Your task to perform on an android device: What's the weather? Image 0: 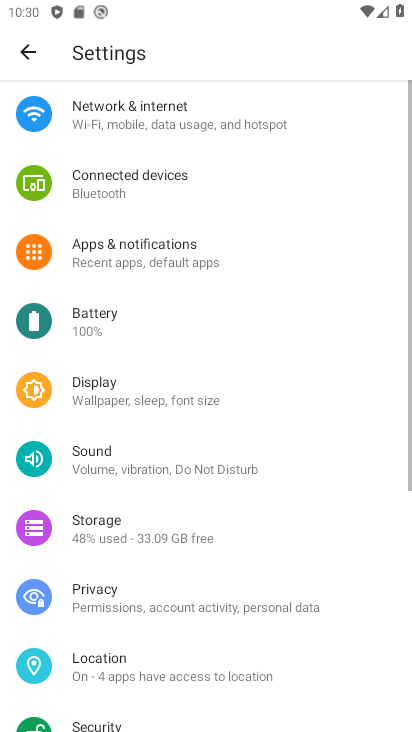
Step 0: press home button
Your task to perform on an android device: What's the weather? Image 1: 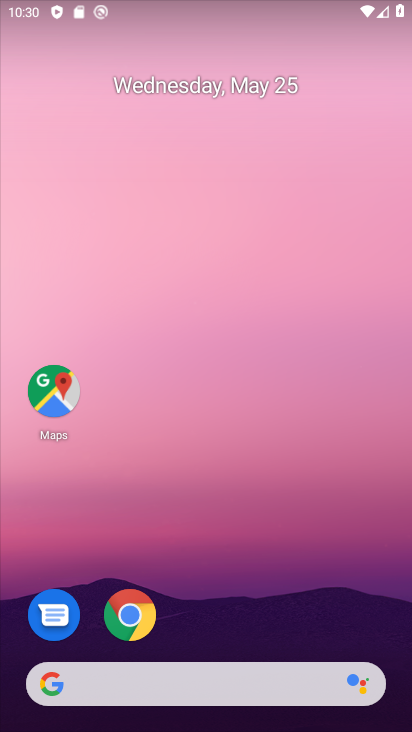
Step 1: click (143, 683)
Your task to perform on an android device: What's the weather? Image 2: 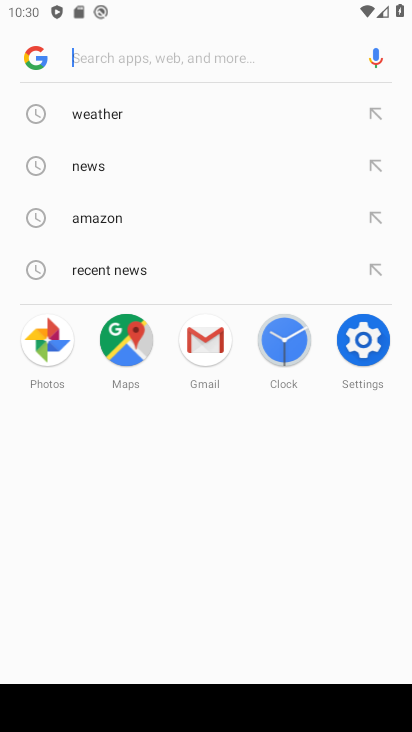
Step 2: type "what''s the weather"
Your task to perform on an android device: What's the weather? Image 3: 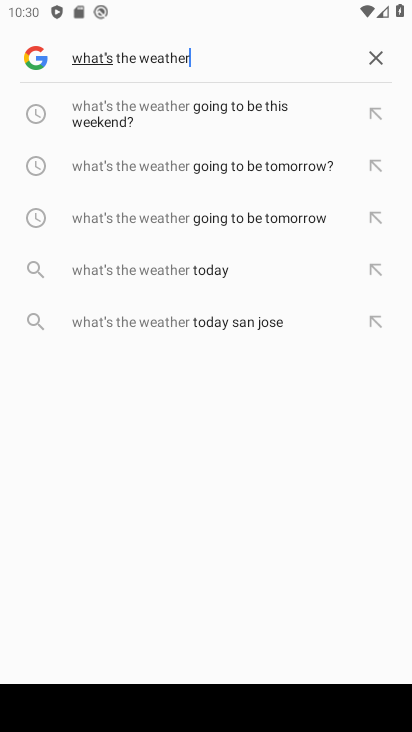
Step 3: click (223, 273)
Your task to perform on an android device: What's the weather? Image 4: 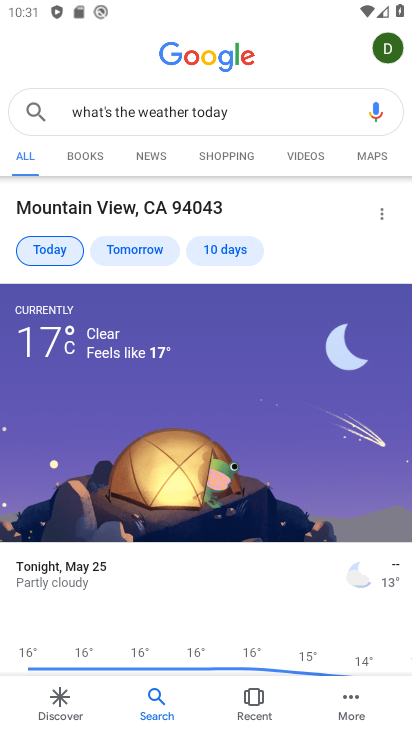
Step 4: task complete